Your task to perform on an android device: toggle sleep mode Image 0: 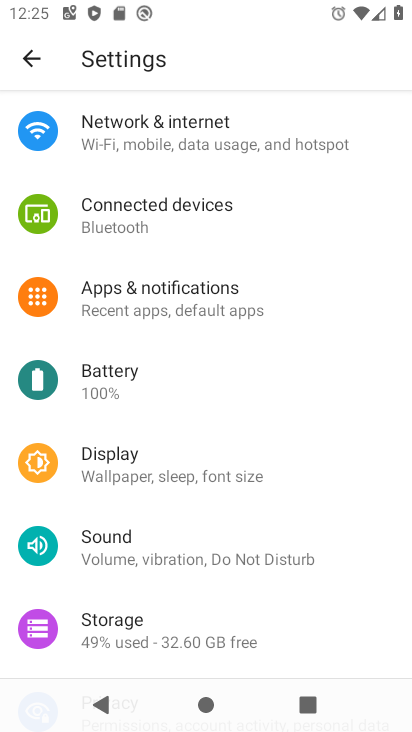
Step 0: click (249, 494)
Your task to perform on an android device: toggle sleep mode Image 1: 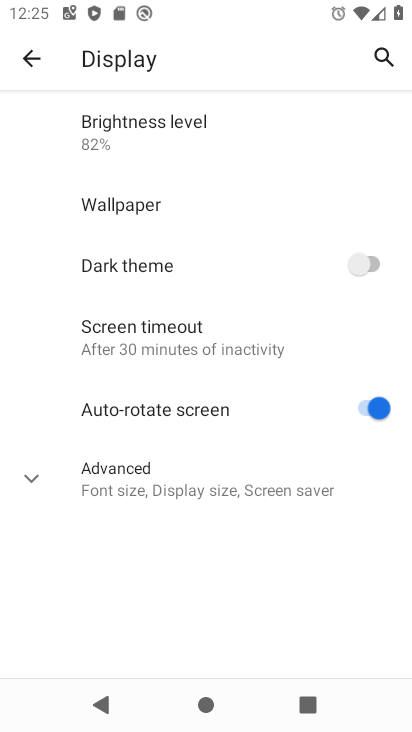
Step 1: click (248, 347)
Your task to perform on an android device: toggle sleep mode Image 2: 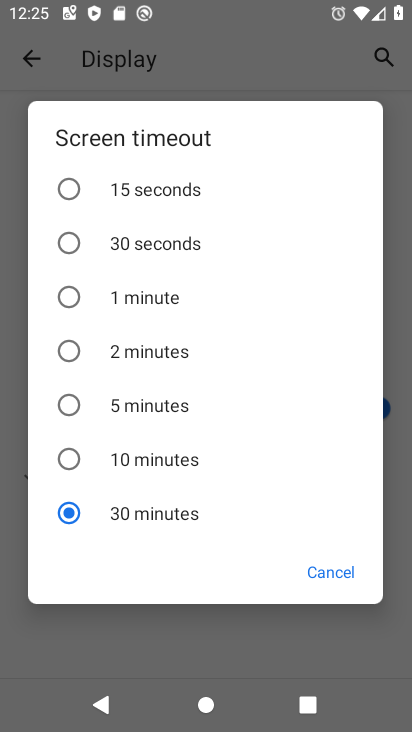
Step 2: click (146, 248)
Your task to perform on an android device: toggle sleep mode Image 3: 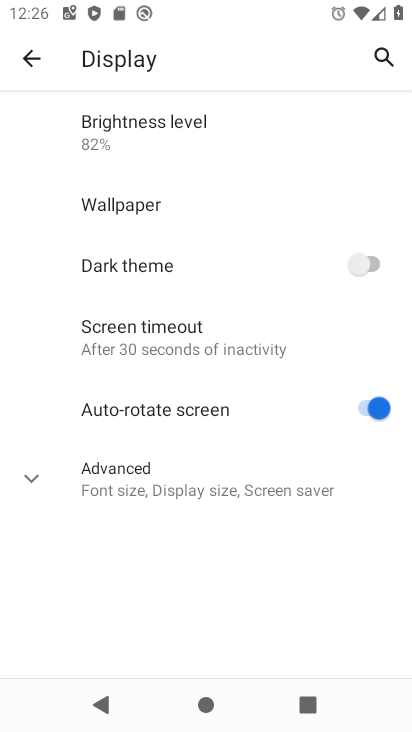
Step 3: task complete